Your task to perform on an android device: visit the assistant section in the google photos Image 0: 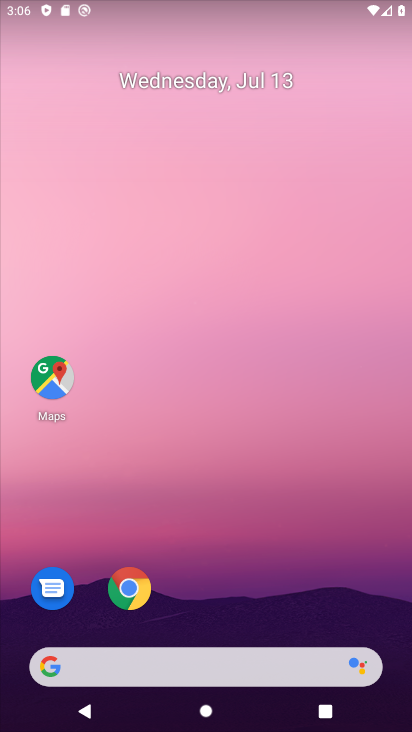
Step 0: drag from (295, 713) to (215, 122)
Your task to perform on an android device: visit the assistant section in the google photos Image 1: 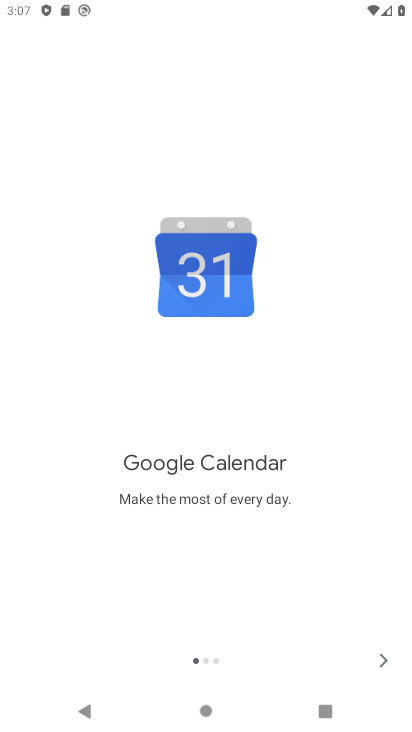
Step 1: press back button
Your task to perform on an android device: visit the assistant section in the google photos Image 2: 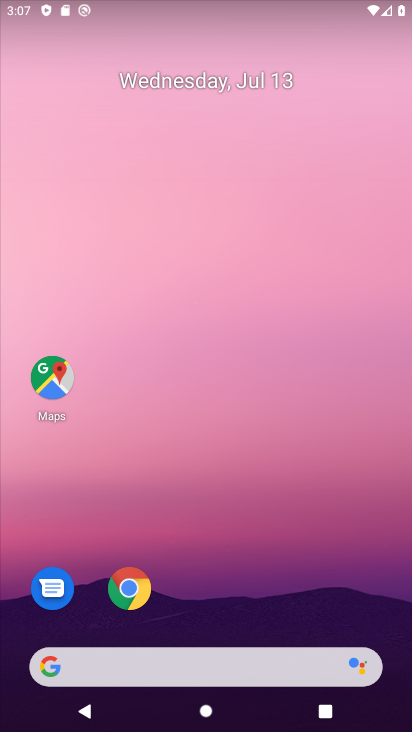
Step 2: drag from (205, 283) to (177, 103)
Your task to perform on an android device: visit the assistant section in the google photos Image 3: 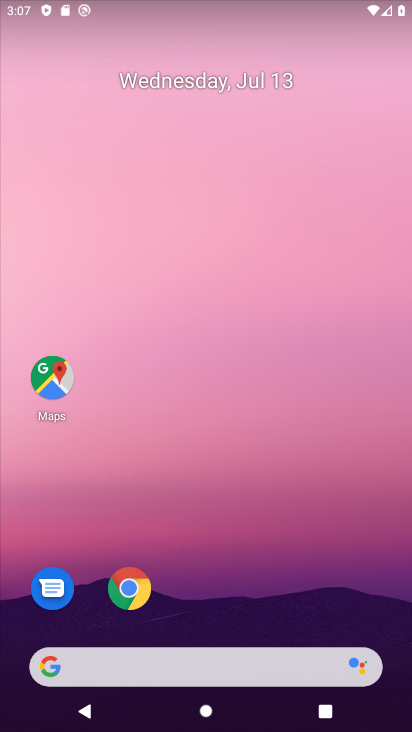
Step 3: drag from (241, 445) to (166, 87)
Your task to perform on an android device: visit the assistant section in the google photos Image 4: 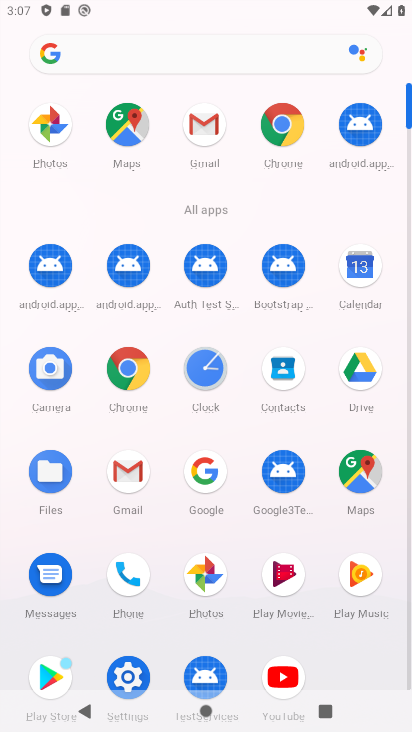
Step 4: click (222, 580)
Your task to perform on an android device: visit the assistant section in the google photos Image 5: 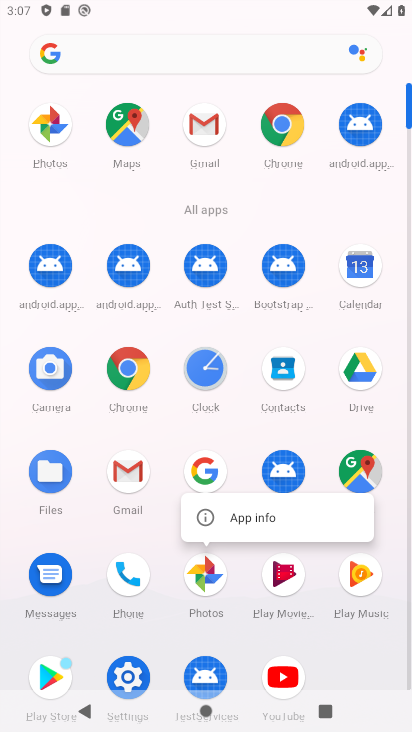
Step 5: click (195, 580)
Your task to perform on an android device: visit the assistant section in the google photos Image 6: 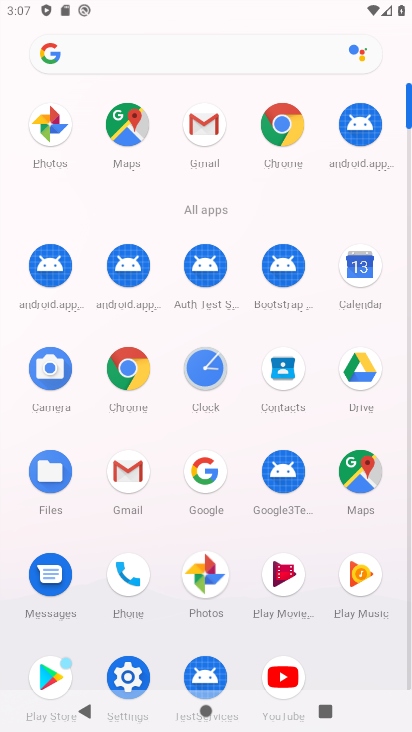
Step 6: click (196, 581)
Your task to perform on an android device: visit the assistant section in the google photos Image 7: 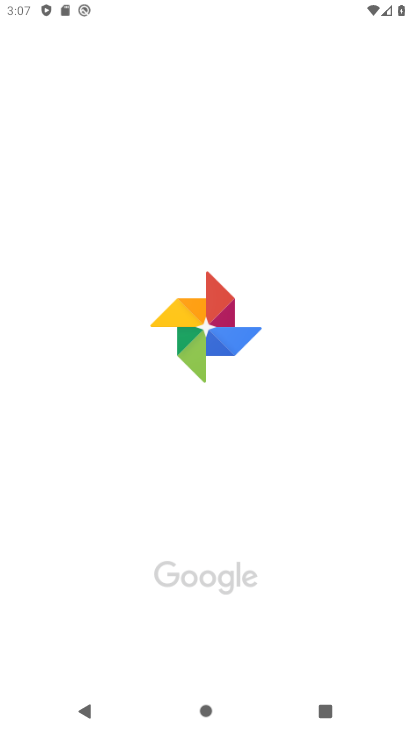
Step 7: click (196, 582)
Your task to perform on an android device: visit the assistant section in the google photos Image 8: 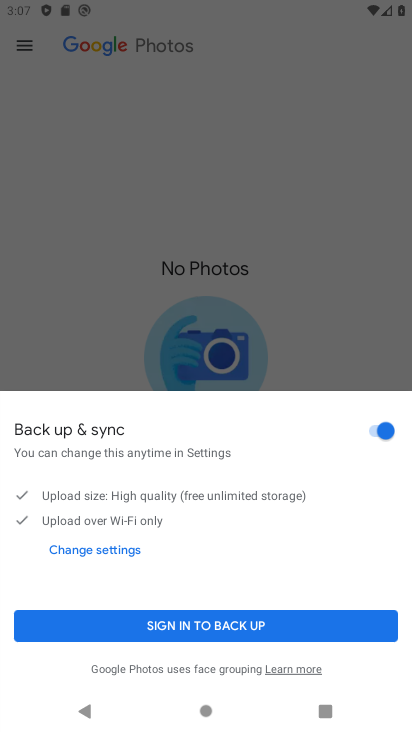
Step 8: click (243, 622)
Your task to perform on an android device: visit the assistant section in the google photos Image 9: 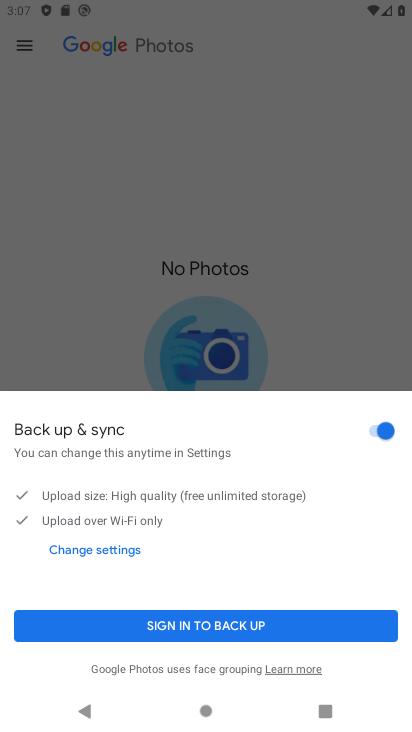
Step 9: click (244, 619)
Your task to perform on an android device: visit the assistant section in the google photos Image 10: 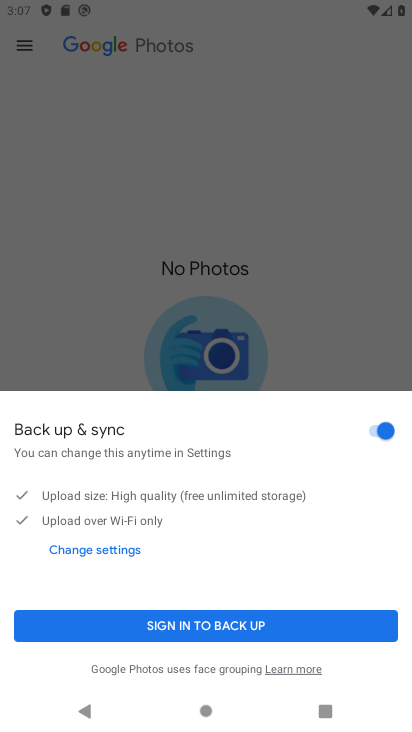
Step 10: click (244, 619)
Your task to perform on an android device: visit the assistant section in the google photos Image 11: 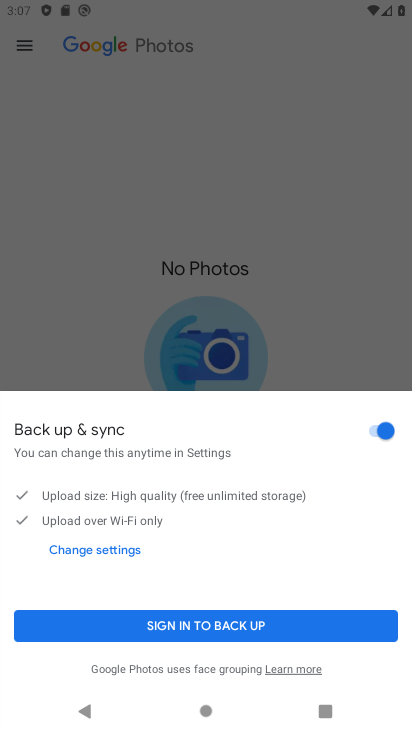
Step 11: click (244, 620)
Your task to perform on an android device: visit the assistant section in the google photos Image 12: 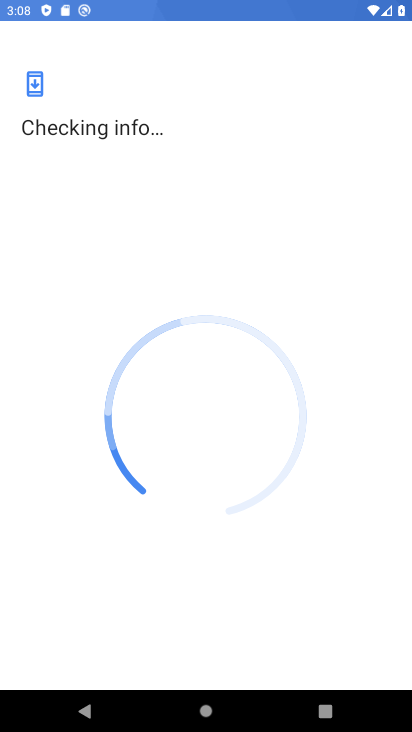
Step 12: task complete